Your task to perform on an android device: What's on my calendar today? Image 0: 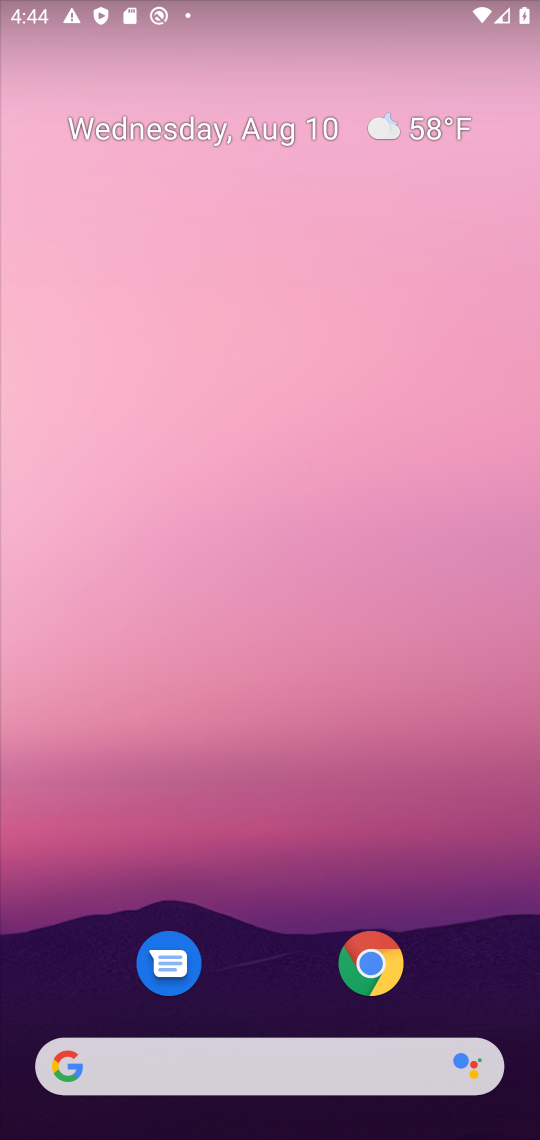
Step 0: drag from (311, 981) to (165, 145)
Your task to perform on an android device: What's on my calendar today? Image 1: 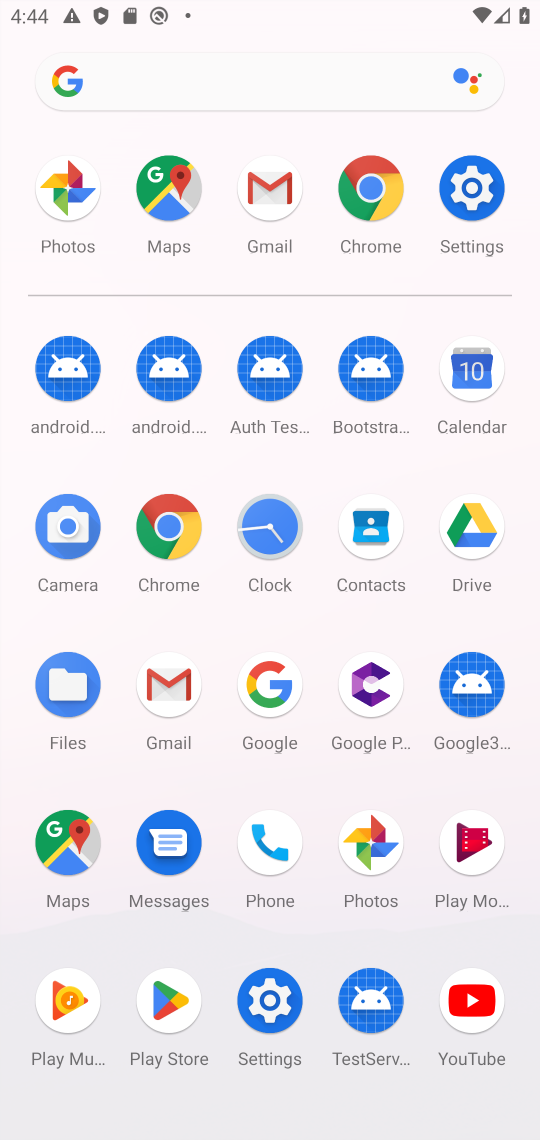
Step 1: click (481, 357)
Your task to perform on an android device: What's on my calendar today? Image 2: 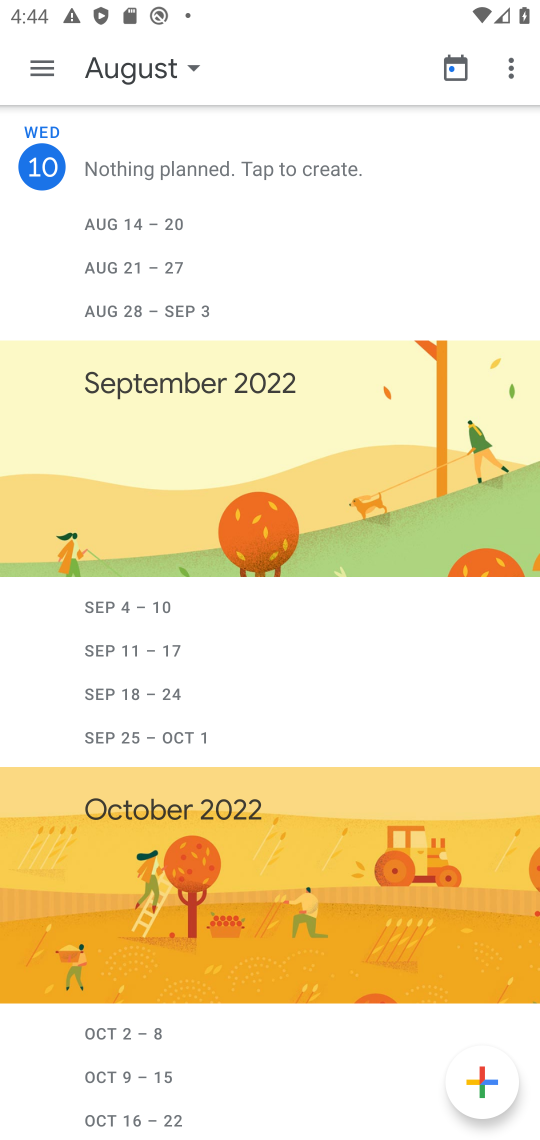
Step 2: click (141, 63)
Your task to perform on an android device: What's on my calendar today? Image 3: 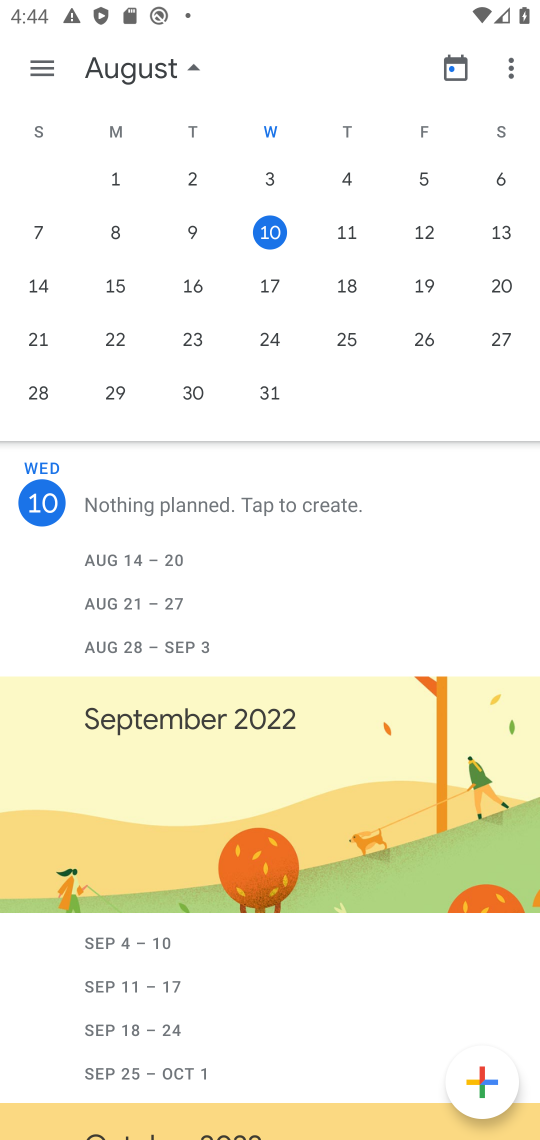
Step 3: click (270, 230)
Your task to perform on an android device: What's on my calendar today? Image 4: 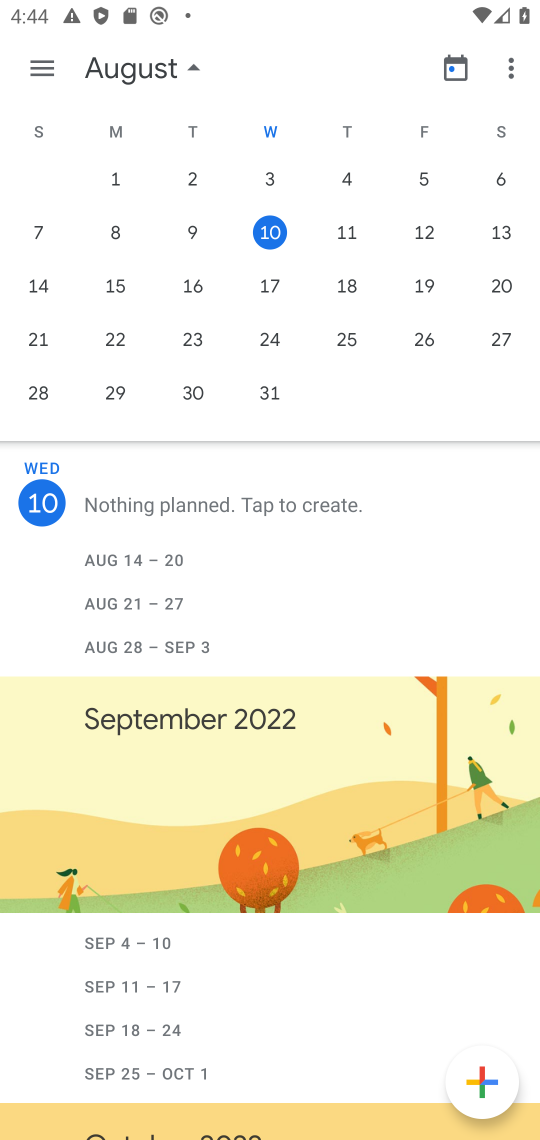
Step 4: task complete